Your task to perform on an android device: Open Google Chrome and open the bookmarks view Image 0: 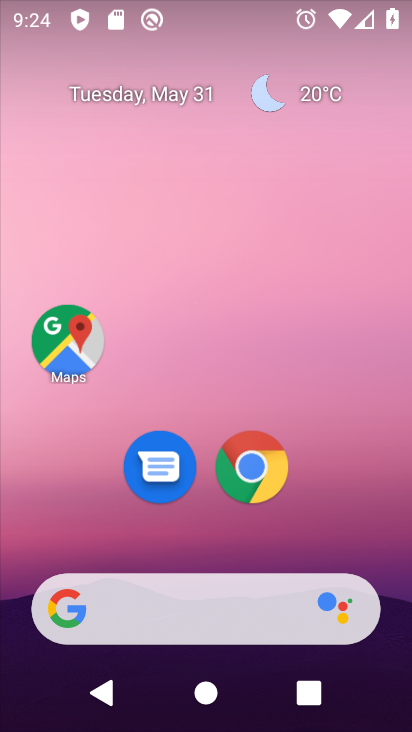
Step 0: drag from (202, 556) to (11, 116)
Your task to perform on an android device: Open Google Chrome and open the bookmarks view Image 1: 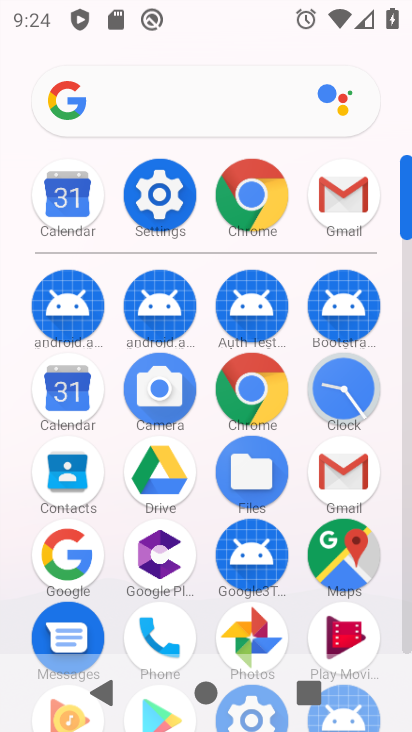
Step 1: click (247, 195)
Your task to perform on an android device: Open Google Chrome and open the bookmarks view Image 2: 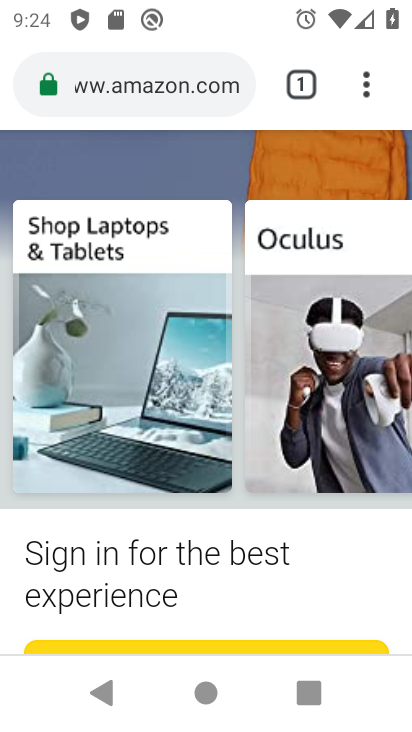
Step 2: task complete